Your task to perform on an android device: change notifications settings Image 0: 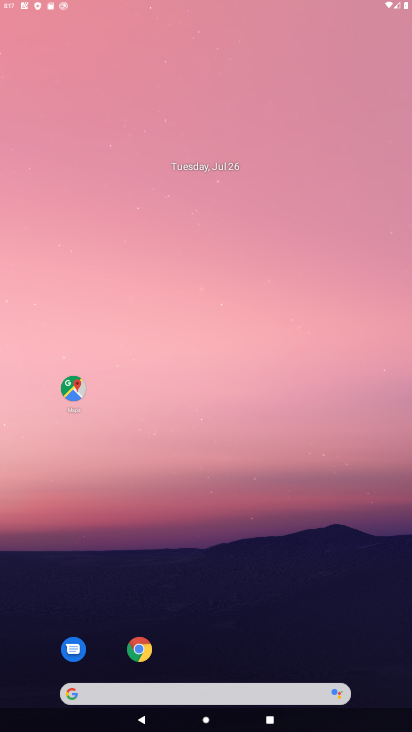
Step 0: drag from (228, 505) to (193, 161)
Your task to perform on an android device: change notifications settings Image 1: 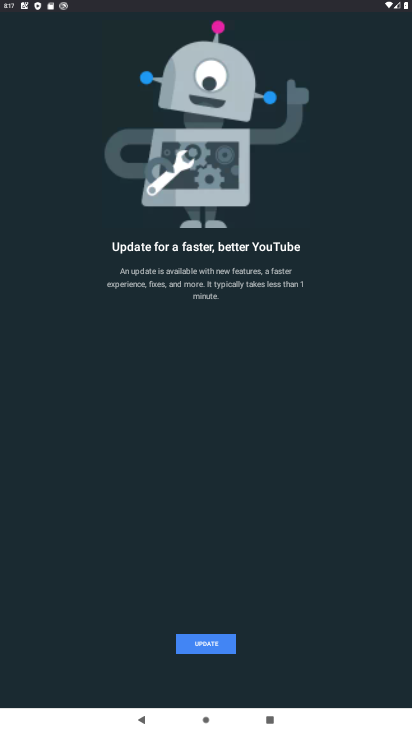
Step 1: press home button
Your task to perform on an android device: change notifications settings Image 2: 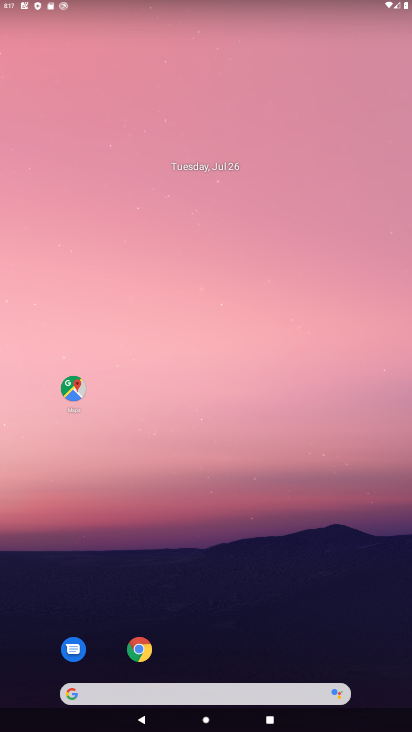
Step 2: drag from (179, 666) to (314, 14)
Your task to perform on an android device: change notifications settings Image 3: 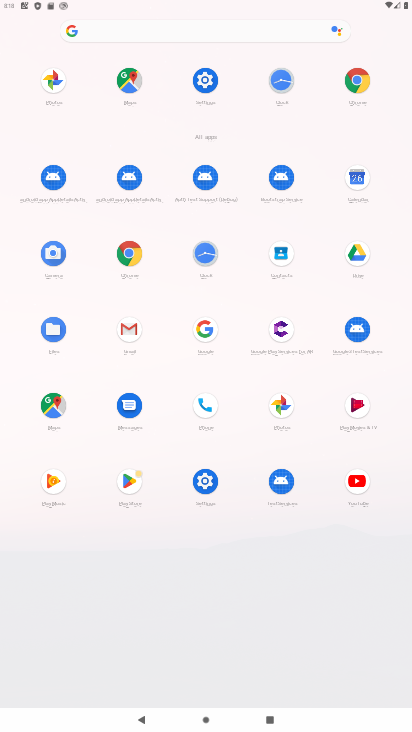
Step 3: click (212, 100)
Your task to perform on an android device: change notifications settings Image 4: 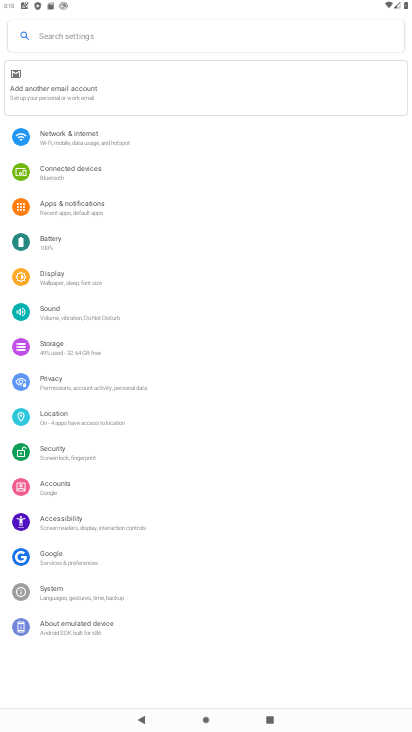
Step 4: click (98, 205)
Your task to perform on an android device: change notifications settings Image 5: 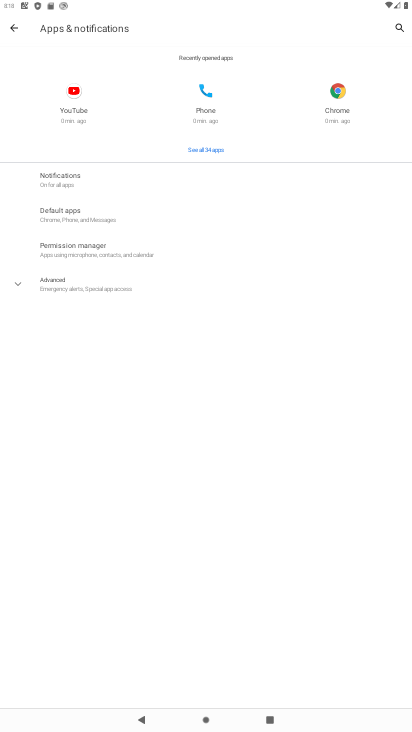
Step 5: click (132, 185)
Your task to perform on an android device: change notifications settings Image 6: 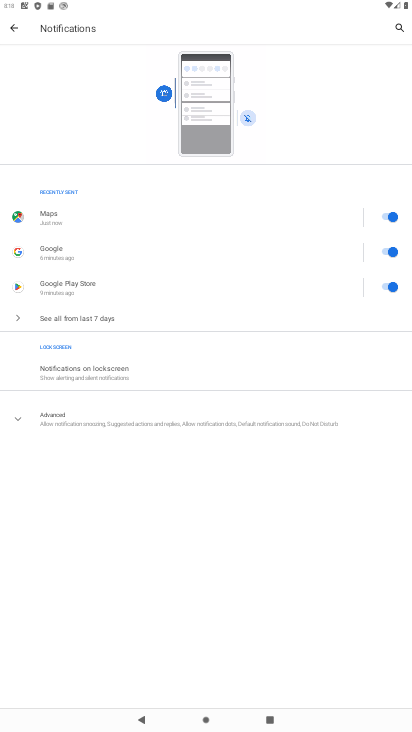
Step 6: click (300, 413)
Your task to perform on an android device: change notifications settings Image 7: 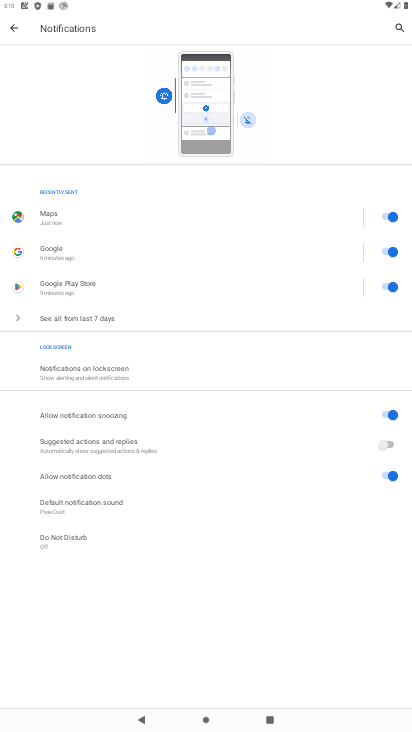
Step 7: click (392, 417)
Your task to perform on an android device: change notifications settings Image 8: 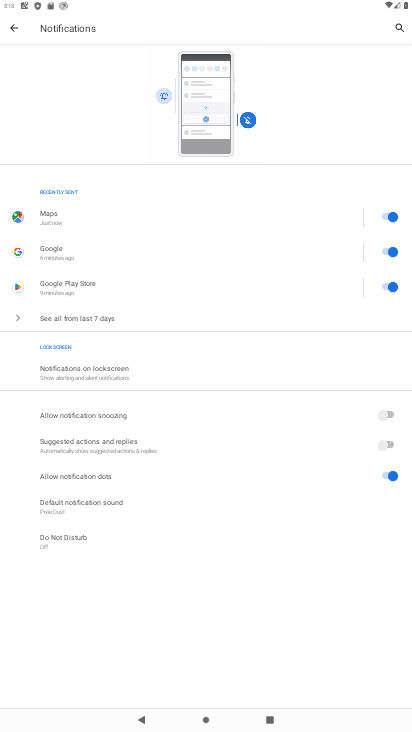
Step 8: click (391, 441)
Your task to perform on an android device: change notifications settings Image 9: 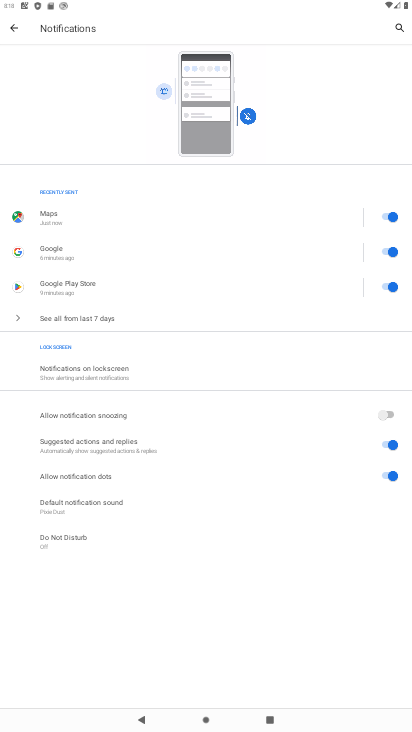
Step 9: click (398, 475)
Your task to perform on an android device: change notifications settings Image 10: 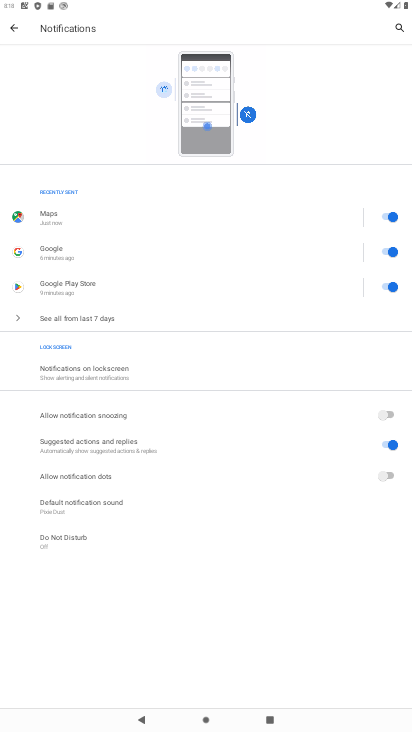
Step 10: task complete